Your task to perform on an android device: open sync settings in chrome Image 0: 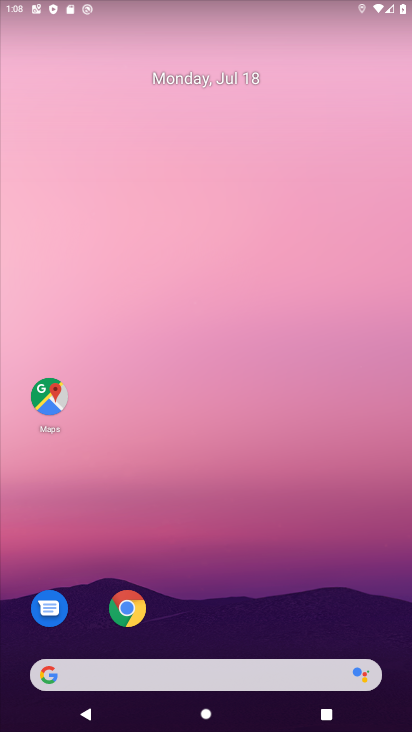
Step 0: click (128, 613)
Your task to perform on an android device: open sync settings in chrome Image 1: 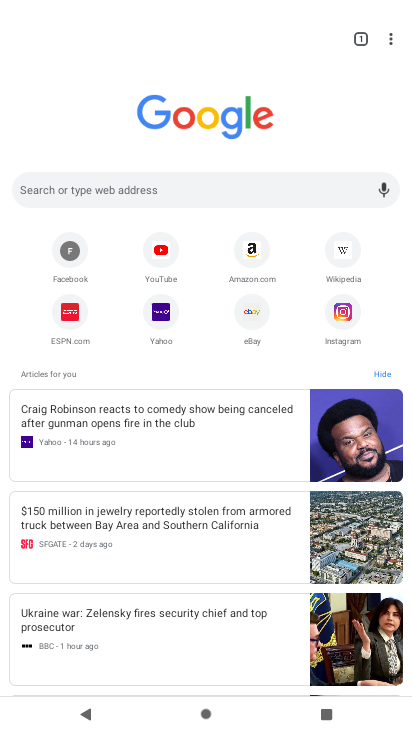
Step 1: click (395, 27)
Your task to perform on an android device: open sync settings in chrome Image 2: 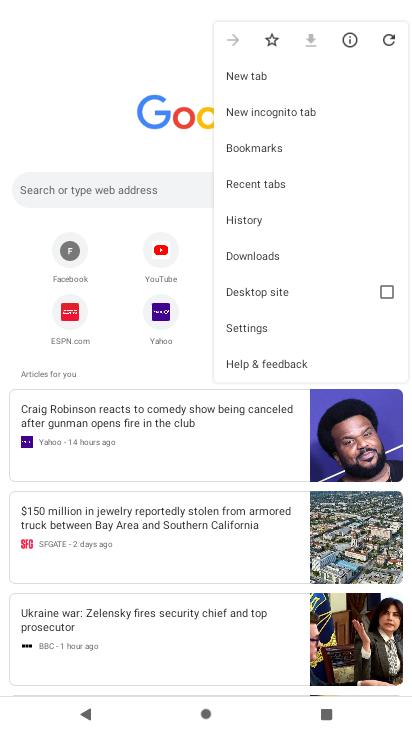
Step 2: click (256, 322)
Your task to perform on an android device: open sync settings in chrome Image 3: 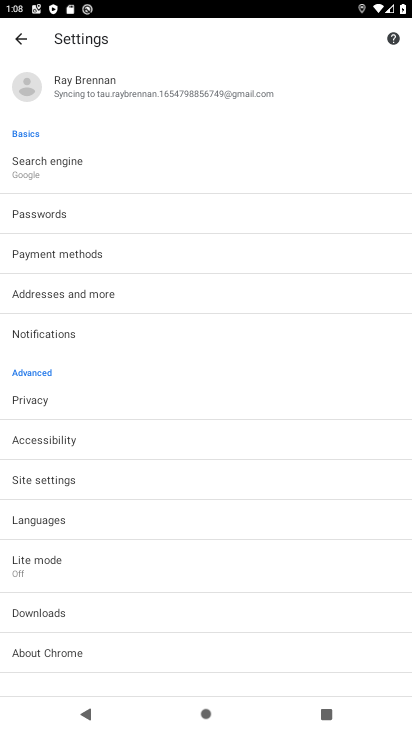
Step 3: click (189, 86)
Your task to perform on an android device: open sync settings in chrome Image 4: 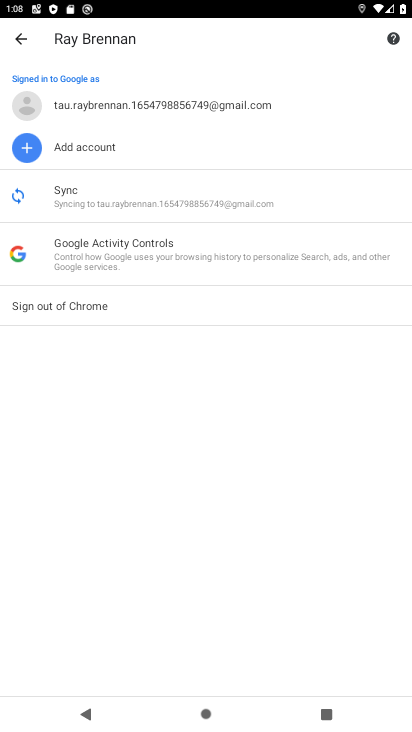
Step 4: click (138, 204)
Your task to perform on an android device: open sync settings in chrome Image 5: 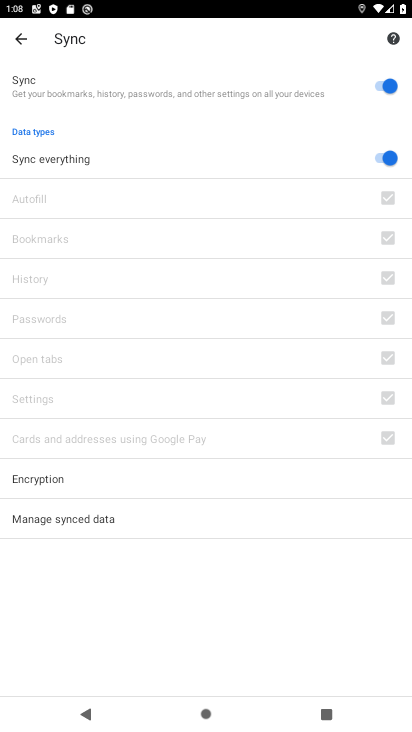
Step 5: task complete